Your task to perform on an android device: Search for Italian restaurants on Maps Image 0: 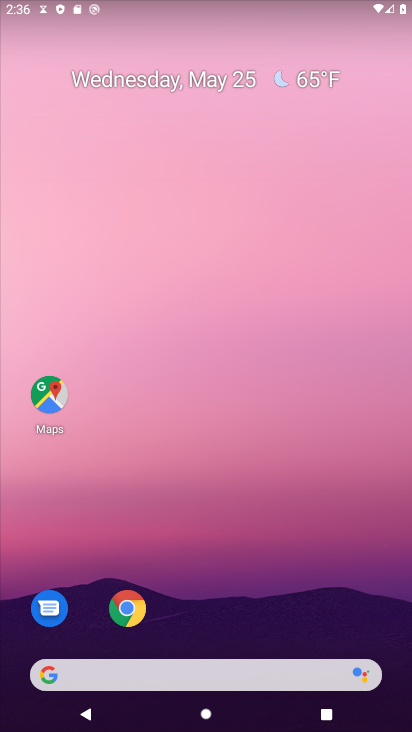
Step 0: click (47, 399)
Your task to perform on an android device: Search for Italian restaurants on Maps Image 1: 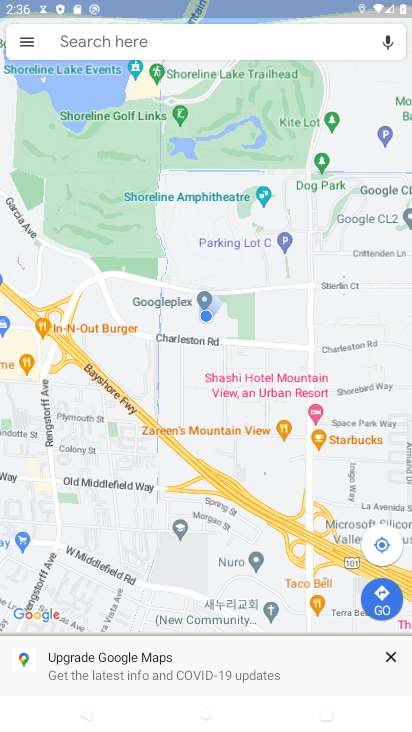
Step 1: click (86, 41)
Your task to perform on an android device: Search for Italian restaurants on Maps Image 2: 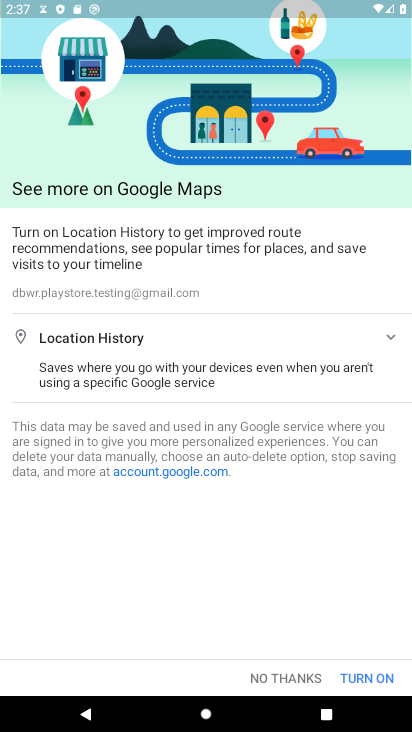
Step 2: click (266, 676)
Your task to perform on an android device: Search for Italian restaurants on Maps Image 3: 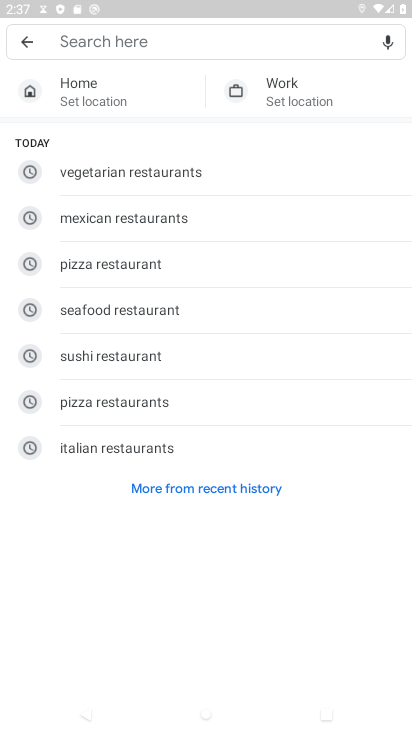
Step 3: click (77, 38)
Your task to perform on an android device: Search for Italian restaurants on Maps Image 4: 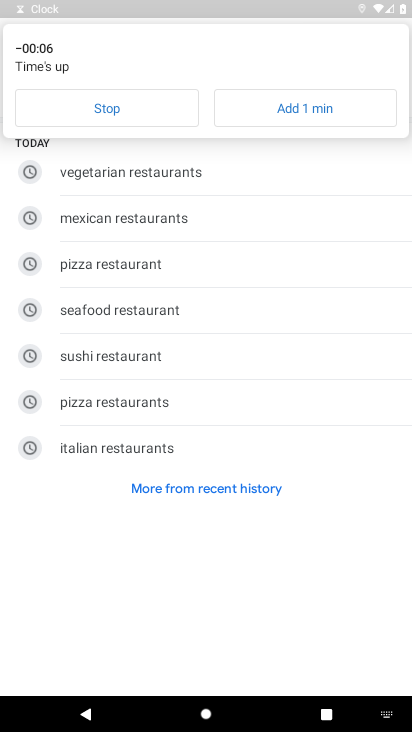
Step 4: type "italian restaurants"
Your task to perform on an android device: Search for Italian restaurants on Maps Image 5: 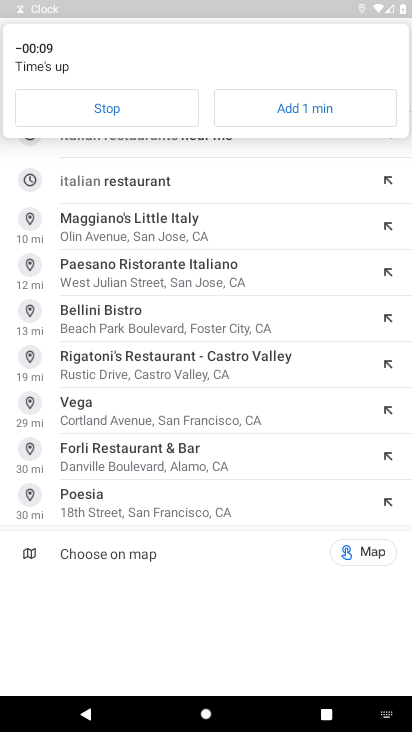
Step 5: click (115, 113)
Your task to perform on an android device: Search for Italian restaurants on Maps Image 6: 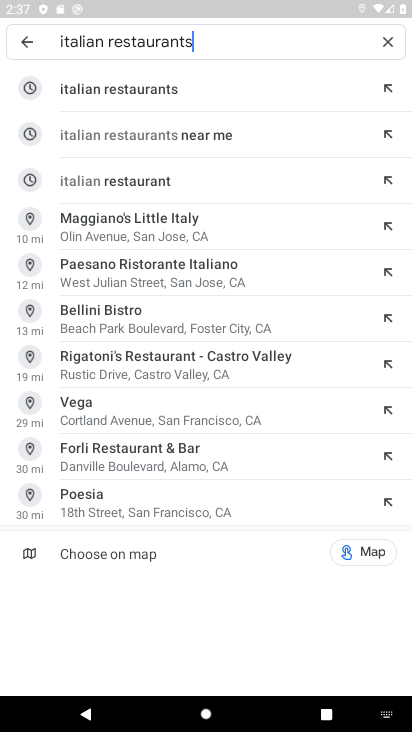
Step 6: click (102, 88)
Your task to perform on an android device: Search for Italian restaurants on Maps Image 7: 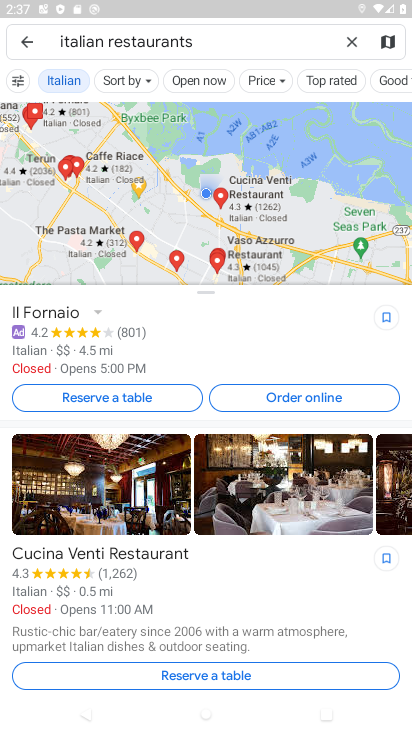
Step 7: task complete